Your task to perform on an android device: Do I have any events tomorrow? Image 0: 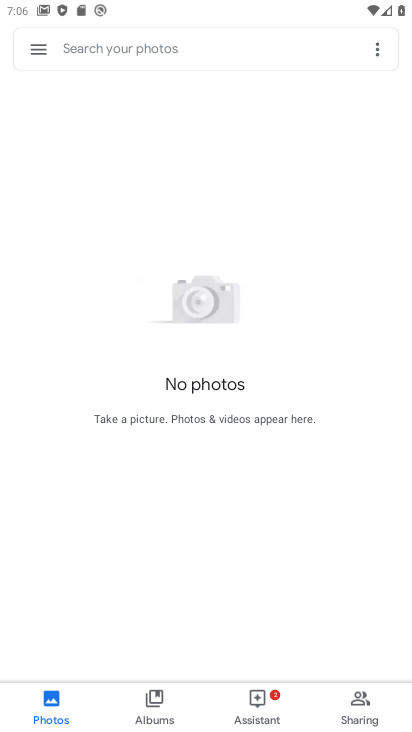
Step 0: press home button
Your task to perform on an android device: Do I have any events tomorrow? Image 1: 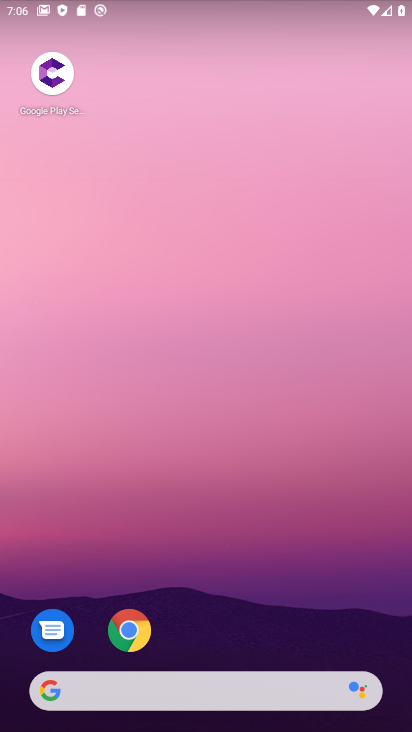
Step 1: drag from (326, 645) to (358, 17)
Your task to perform on an android device: Do I have any events tomorrow? Image 2: 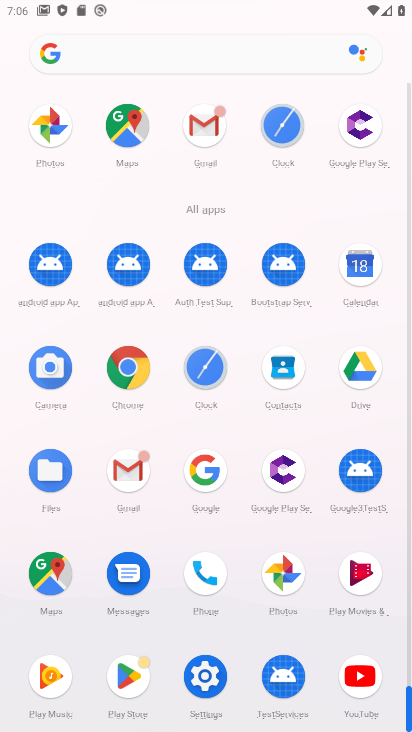
Step 2: click (370, 269)
Your task to perform on an android device: Do I have any events tomorrow? Image 3: 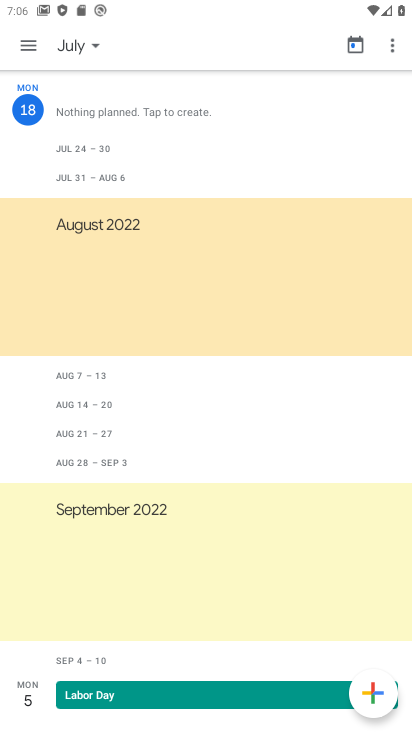
Step 3: click (69, 31)
Your task to perform on an android device: Do I have any events tomorrow? Image 4: 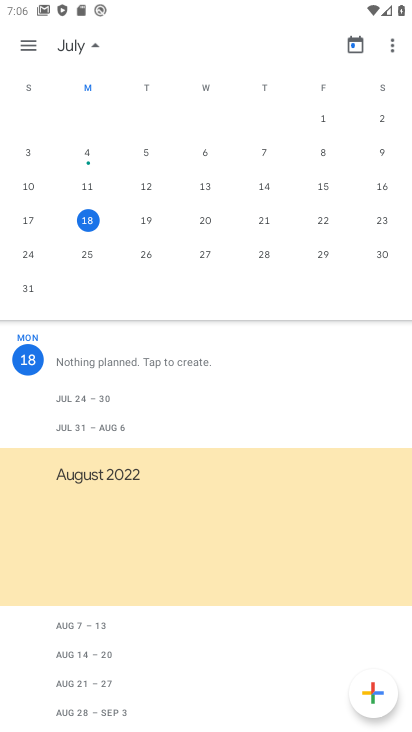
Step 4: click (149, 223)
Your task to perform on an android device: Do I have any events tomorrow? Image 5: 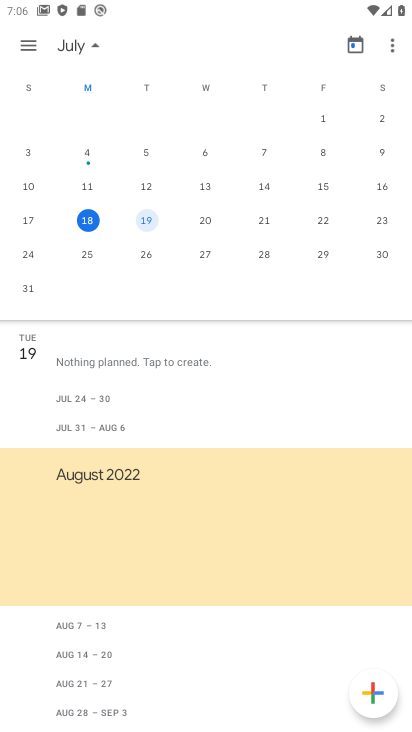
Step 5: task complete